Your task to perform on an android device: Open the calendar and show me this week's events Image 0: 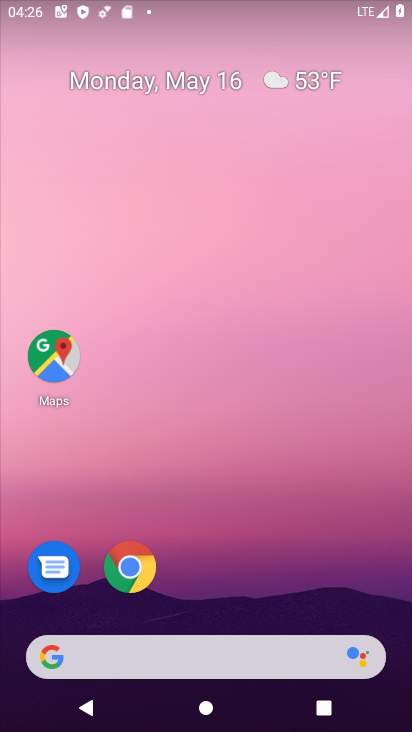
Step 0: drag from (271, 616) to (344, 0)
Your task to perform on an android device: Open the calendar and show me this week's events Image 1: 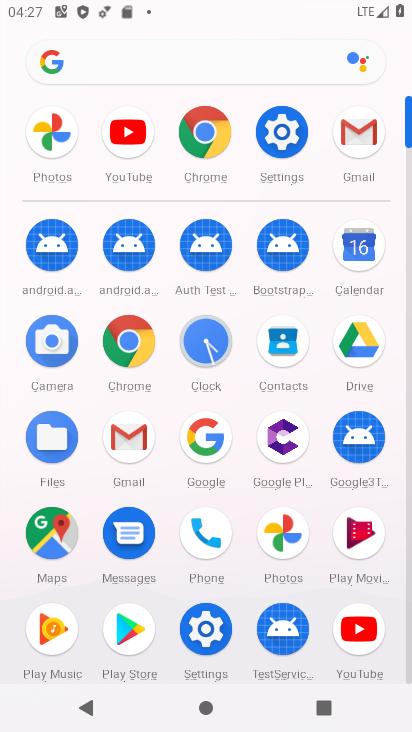
Step 1: click (369, 244)
Your task to perform on an android device: Open the calendar and show me this week's events Image 2: 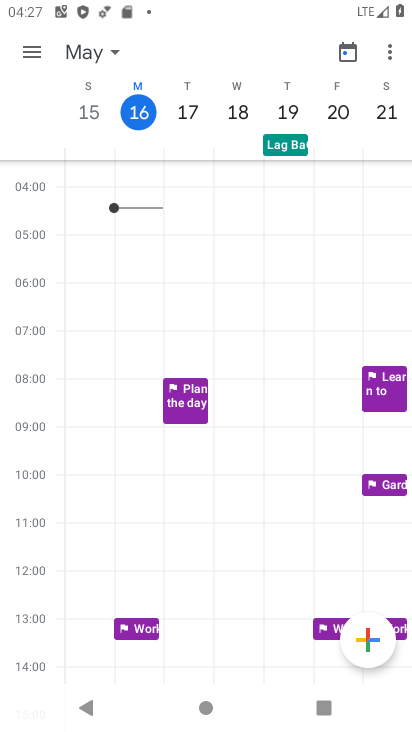
Step 2: click (118, 45)
Your task to perform on an android device: Open the calendar and show me this week's events Image 3: 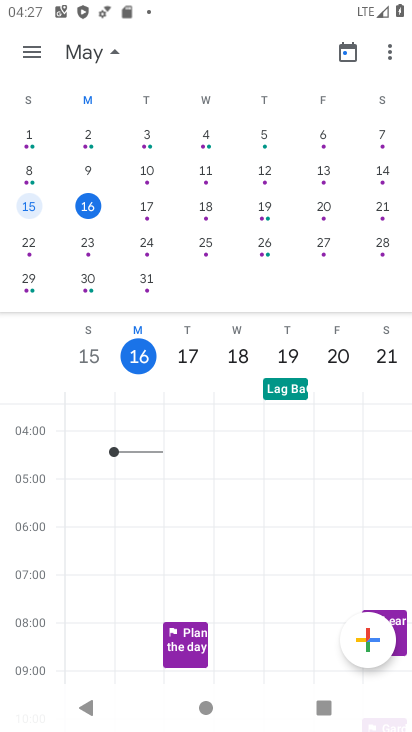
Step 3: task complete